Your task to perform on an android device: Open the calendar and show me this week's events? Image 0: 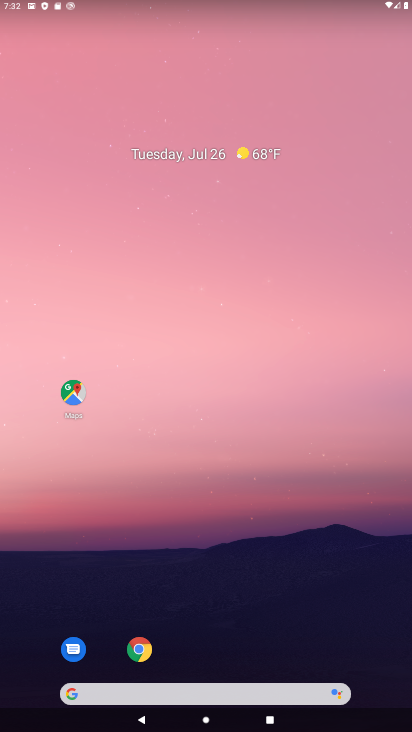
Step 0: drag from (229, 713) to (266, 328)
Your task to perform on an android device: Open the calendar and show me this week's events? Image 1: 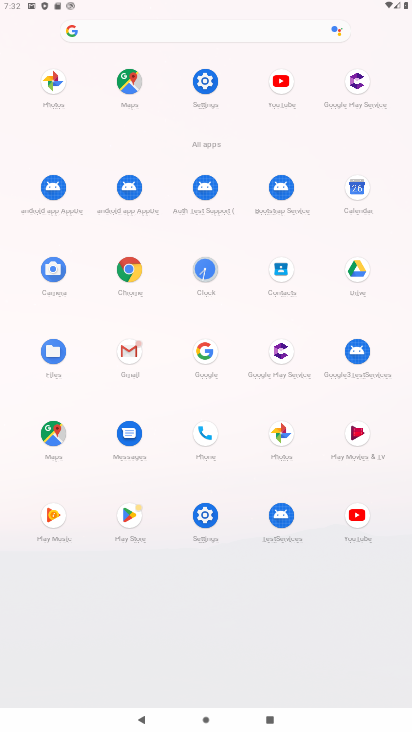
Step 1: click (355, 190)
Your task to perform on an android device: Open the calendar and show me this week's events? Image 2: 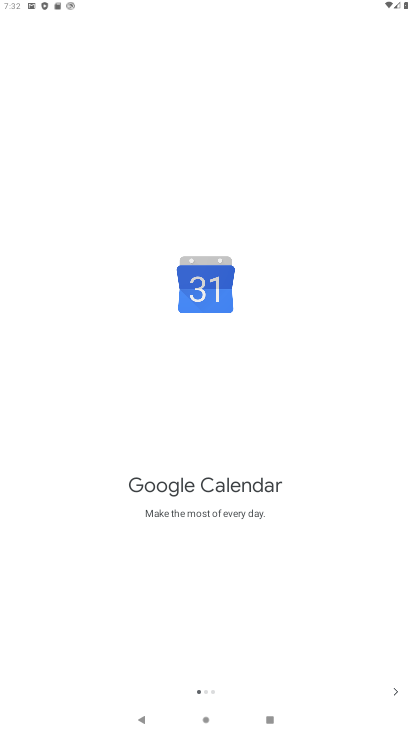
Step 2: click (395, 692)
Your task to perform on an android device: Open the calendar and show me this week's events? Image 3: 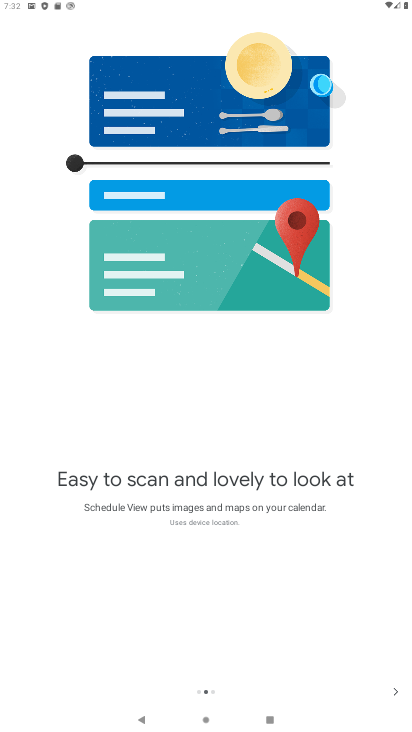
Step 3: click (395, 692)
Your task to perform on an android device: Open the calendar and show me this week's events? Image 4: 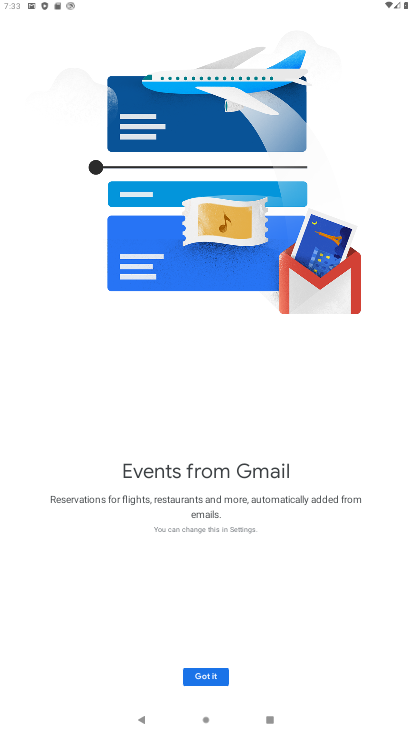
Step 4: click (204, 680)
Your task to perform on an android device: Open the calendar and show me this week's events? Image 5: 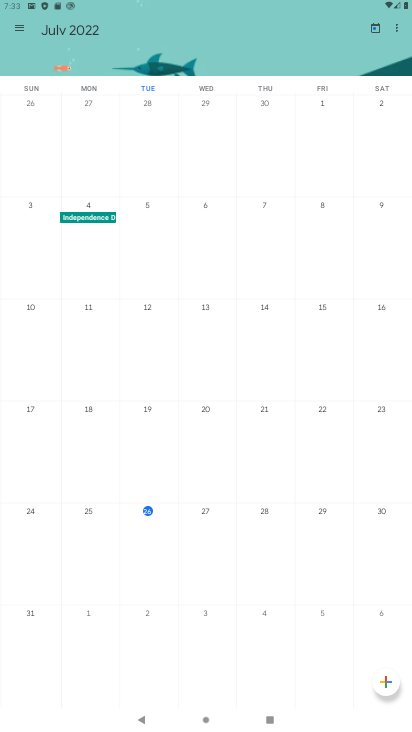
Step 5: click (10, 24)
Your task to perform on an android device: Open the calendar and show me this week's events? Image 6: 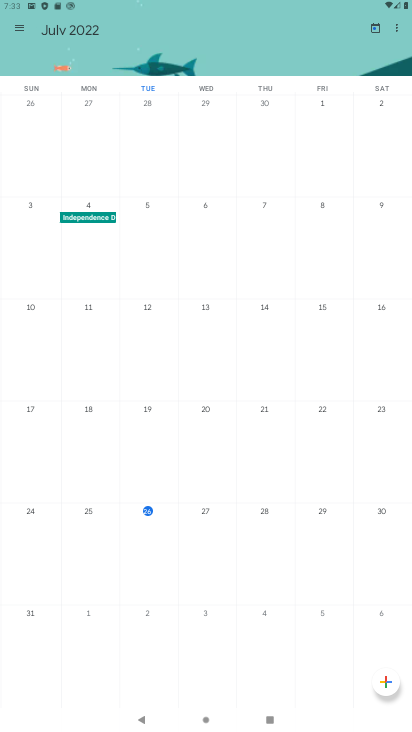
Step 6: click (15, 33)
Your task to perform on an android device: Open the calendar and show me this week's events? Image 7: 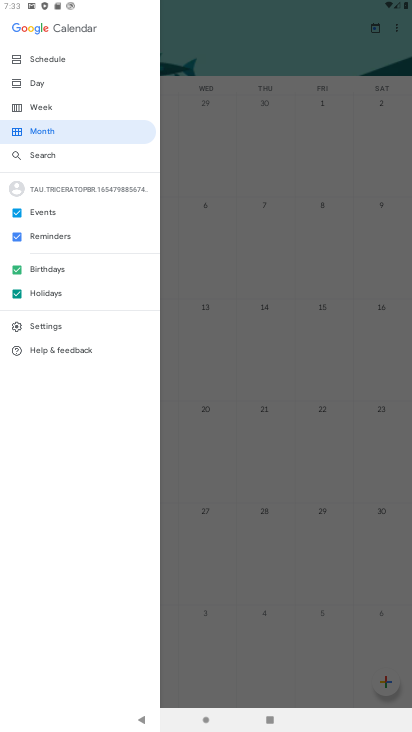
Step 7: click (71, 61)
Your task to perform on an android device: Open the calendar and show me this week's events? Image 8: 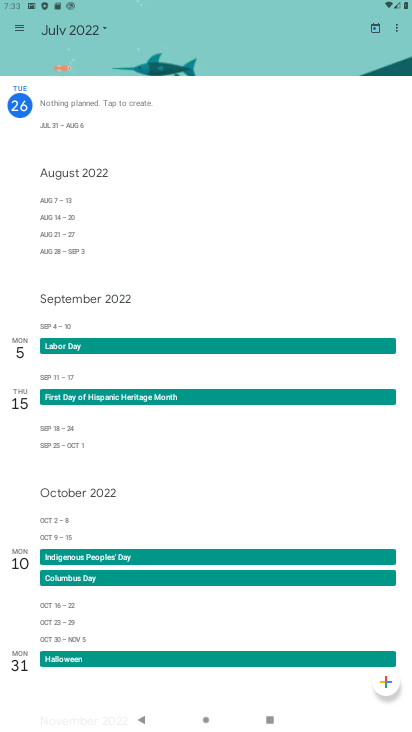
Step 8: task complete